Your task to perform on an android device: turn notification dots off Image 0: 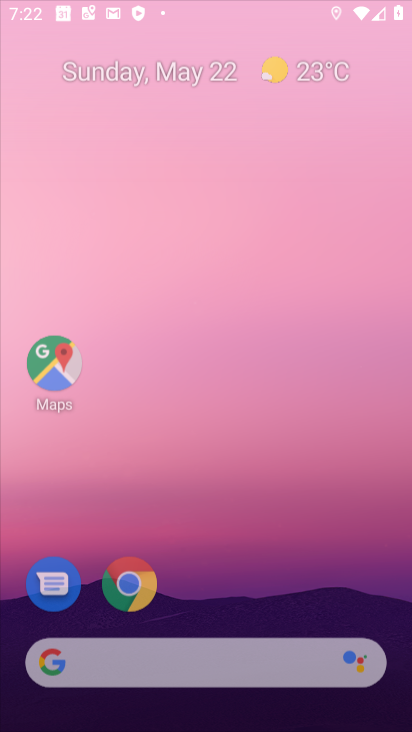
Step 0: drag from (354, 614) to (327, 33)
Your task to perform on an android device: turn notification dots off Image 1: 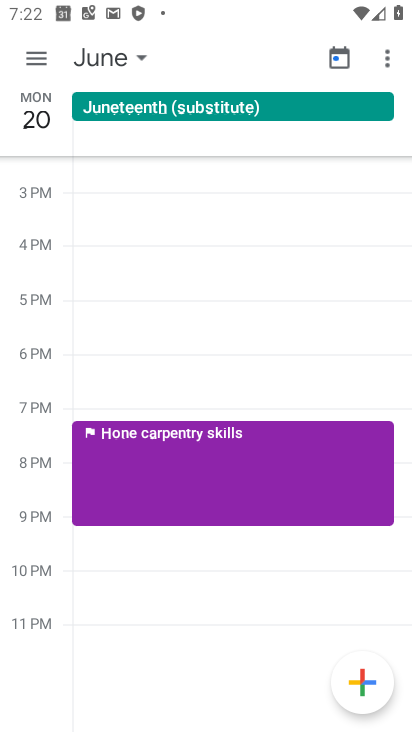
Step 1: press home button
Your task to perform on an android device: turn notification dots off Image 2: 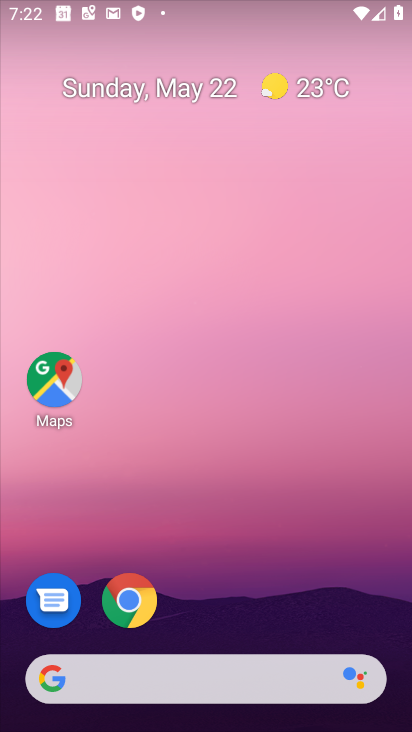
Step 2: drag from (361, 610) to (342, 37)
Your task to perform on an android device: turn notification dots off Image 3: 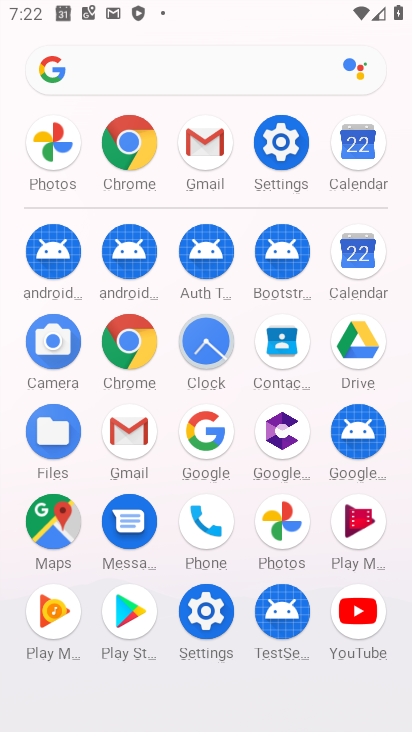
Step 3: click (282, 122)
Your task to perform on an android device: turn notification dots off Image 4: 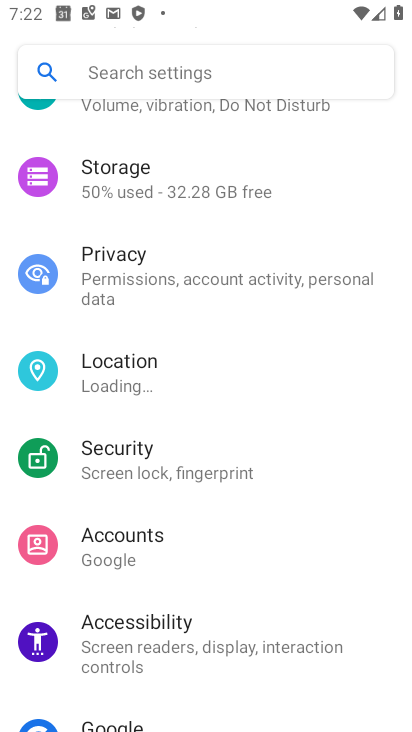
Step 4: drag from (201, 209) to (186, 642)
Your task to perform on an android device: turn notification dots off Image 5: 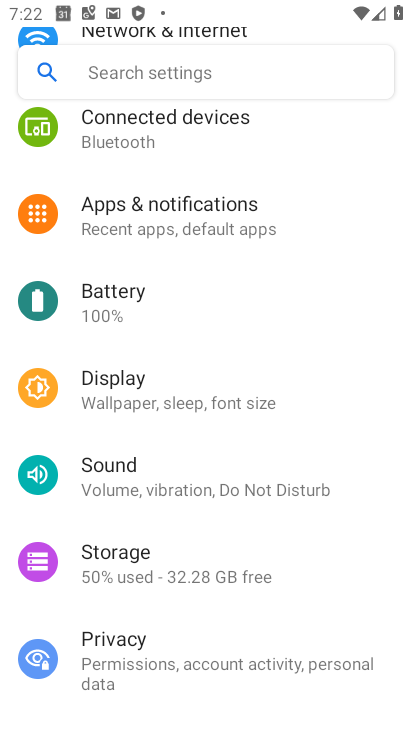
Step 5: click (247, 224)
Your task to perform on an android device: turn notification dots off Image 6: 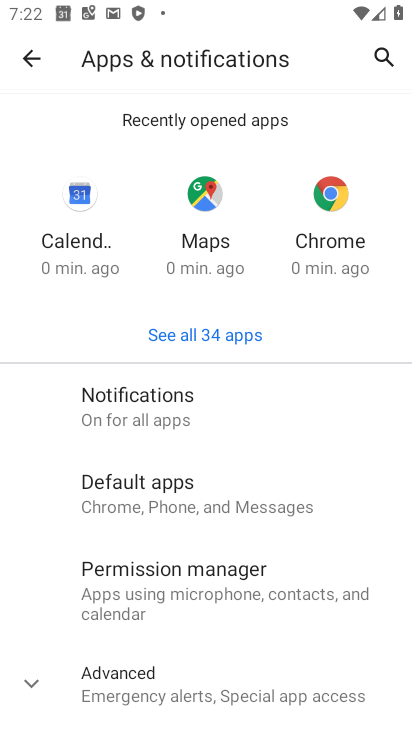
Step 6: click (170, 367)
Your task to perform on an android device: turn notification dots off Image 7: 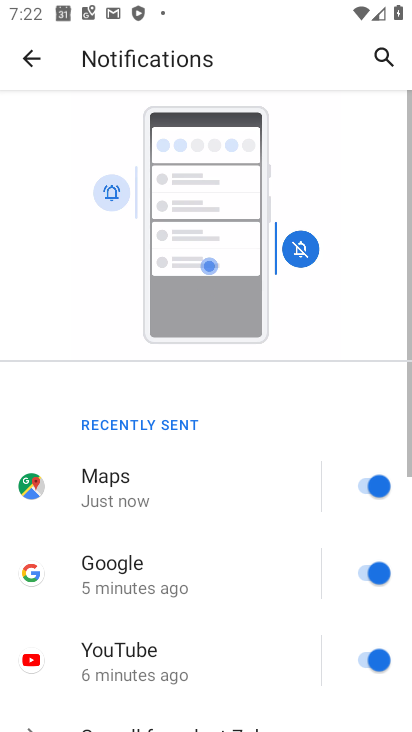
Step 7: drag from (124, 639) to (256, 73)
Your task to perform on an android device: turn notification dots off Image 8: 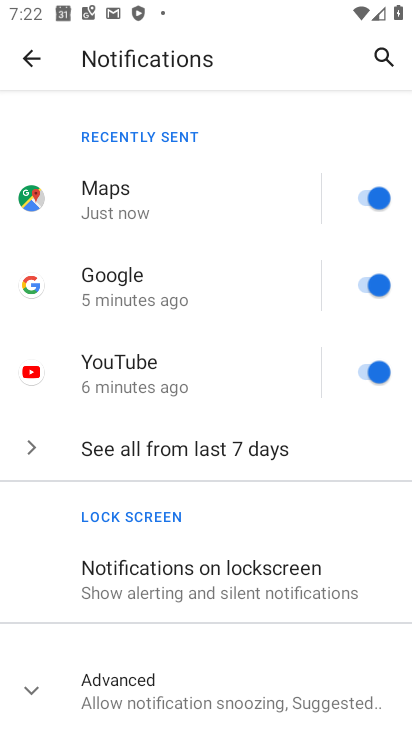
Step 8: click (177, 670)
Your task to perform on an android device: turn notification dots off Image 9: 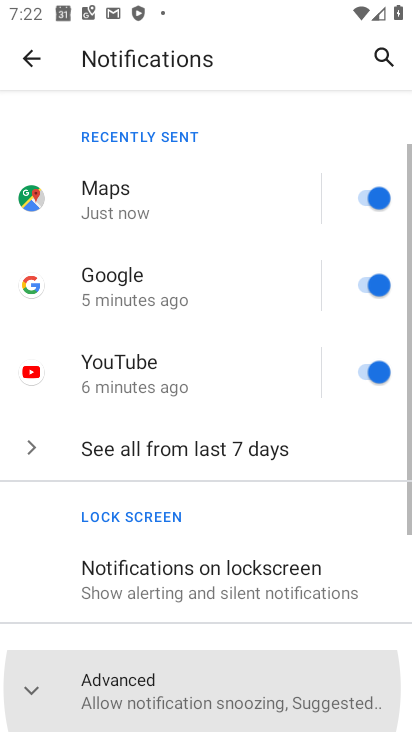
Step 9: task complete